Your task to perform on an android device: turn off translation in the chrome app Image 0: 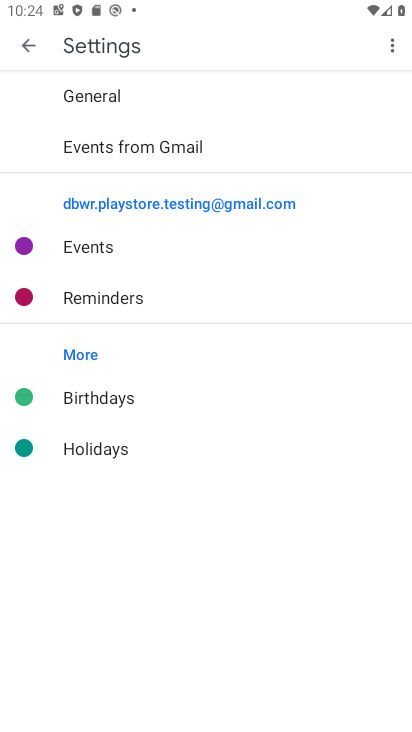
Step 0: press home button
Your task to perform on an android device: turn off translation in the chrome app Image 1: 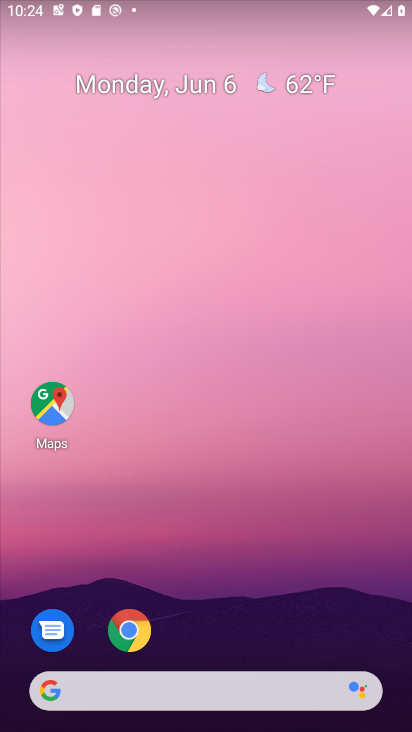
Step 1: drag from (321, 387) to (321, 180)
Your task to perform on an android device: turn off translation in the chrome app Image 2: 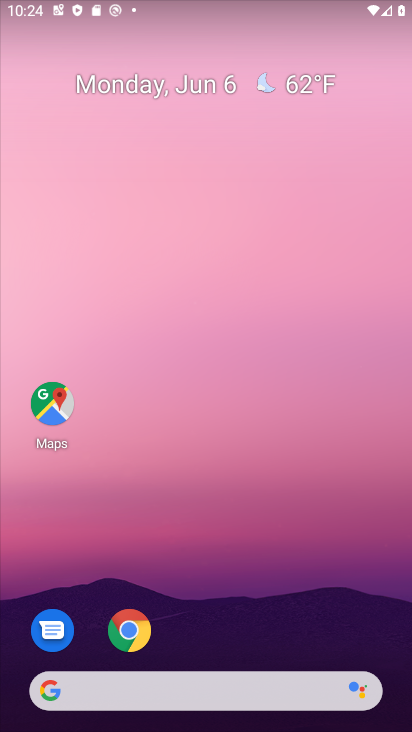
Step 2: drag from (301, 611) to (330, 129)
Your task to perform on an android device: turn off translation in the chrome app Image 3: 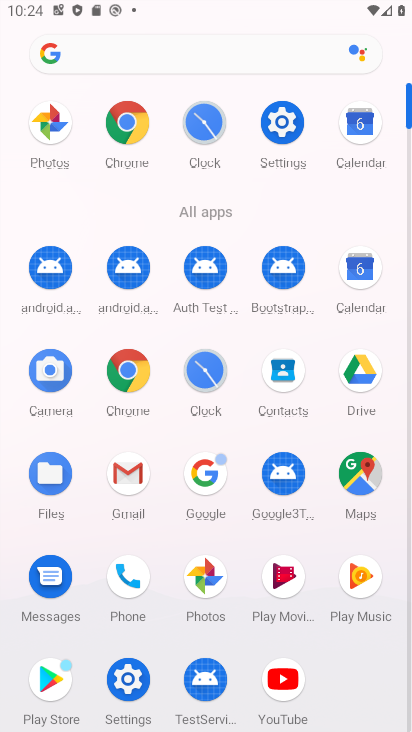
Step 3: click (114, 391)
Your task to perform on an android device: turn off translation in the chrome app Image 4: 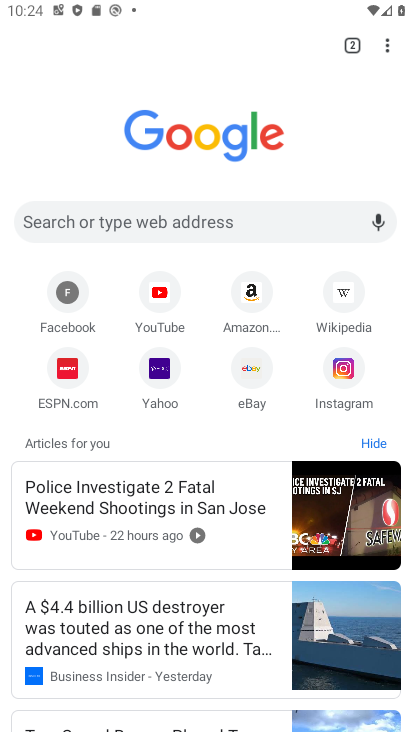
Step 4: drag from (384, 49) to (260, 373)
Your task to perform on an android device: turn off translation in the chrome app Image 5: 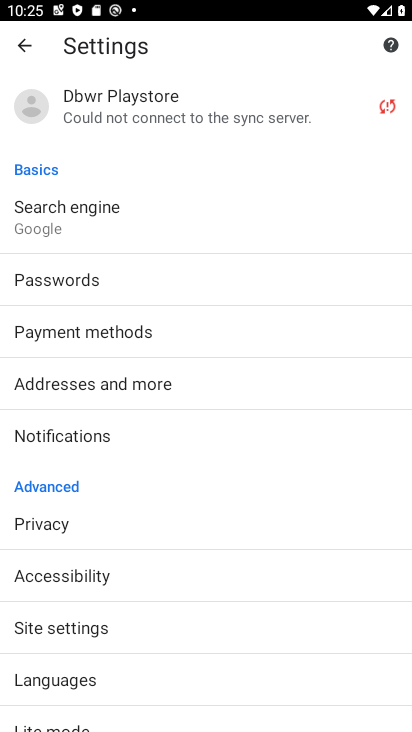
Step 5: drag from (192, 684) to (254, 486)
Your task to perform on an android device: turn off translation in the chrome app Image 6: 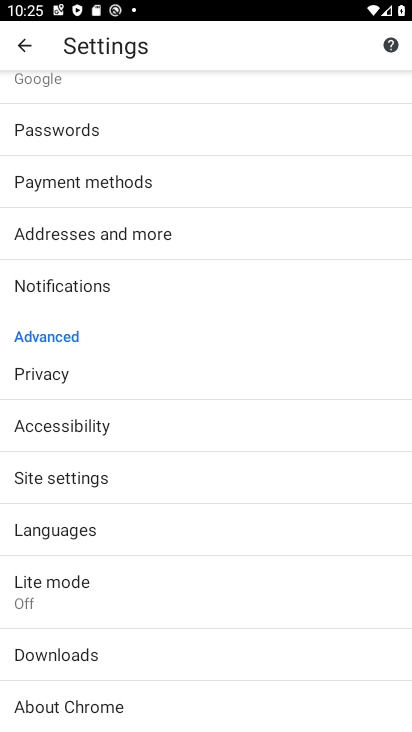
Step 6: click (167, 532)
Your task to perform on an android device: turn off translation in the chrome app Image 7: 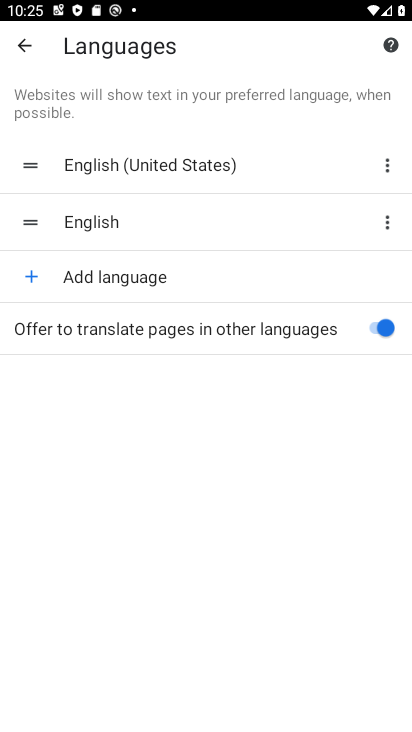
Step 7: click (392, 325)
Your task to perform on an android device: turn off translation in the chrome app Image 8: 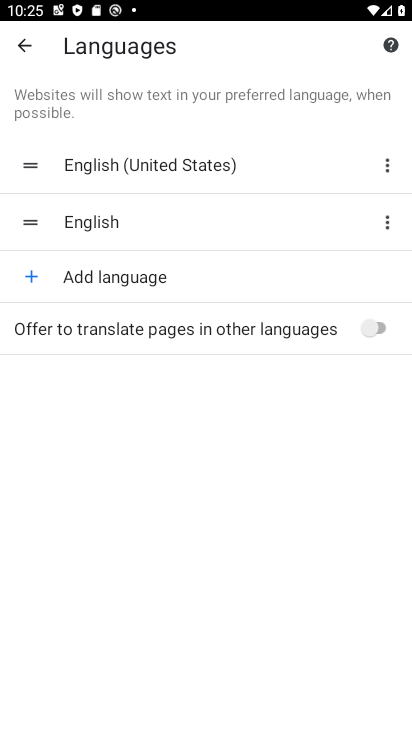
Step 8: task complete